Your task to perform on an android device: make emails show in primary in the gmail app Image 0: 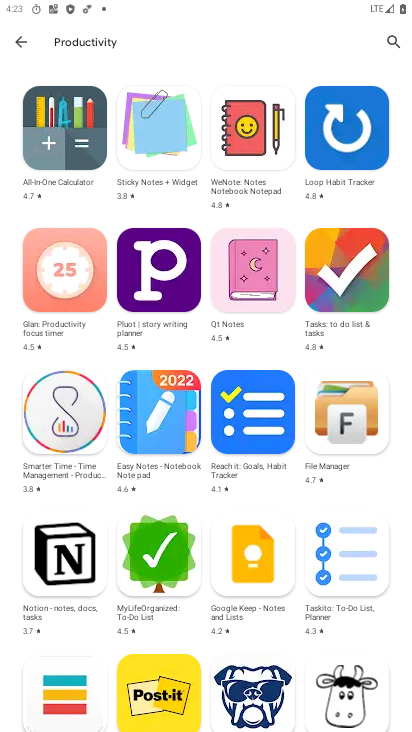
Step 0: press home button
Your task to perform on an android device: make emails show in primary in the gmail app Image 1: 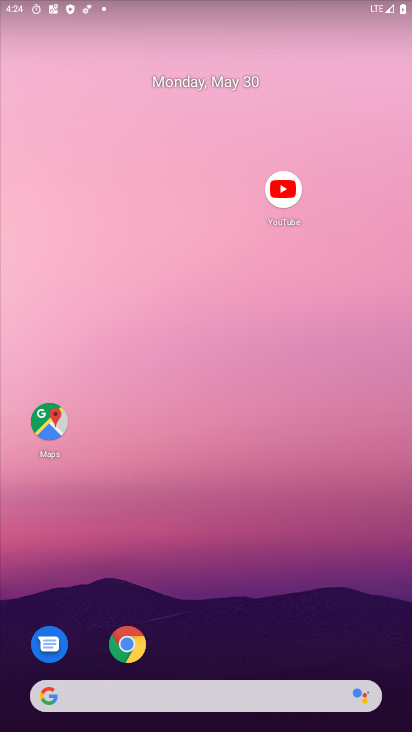
Step 1: drag from (176, 663) to (182, 194)
Your task to perform on an android device: make emails show in primary in the gmail app Image 2: 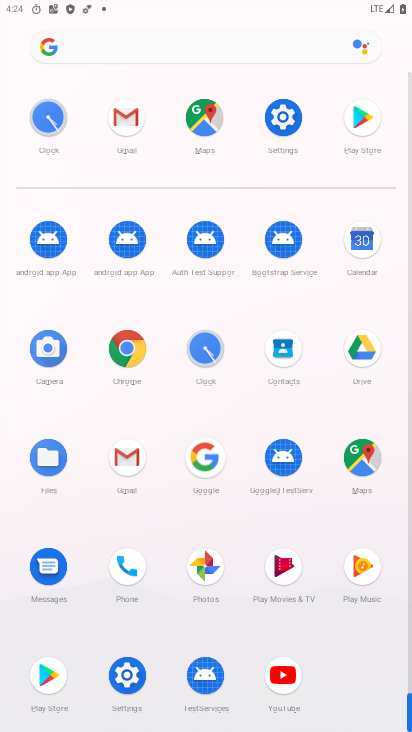
Step 2: click (116, 138)
Your task to perform on an android device: make emails show in primary in the gmail app Image 3: 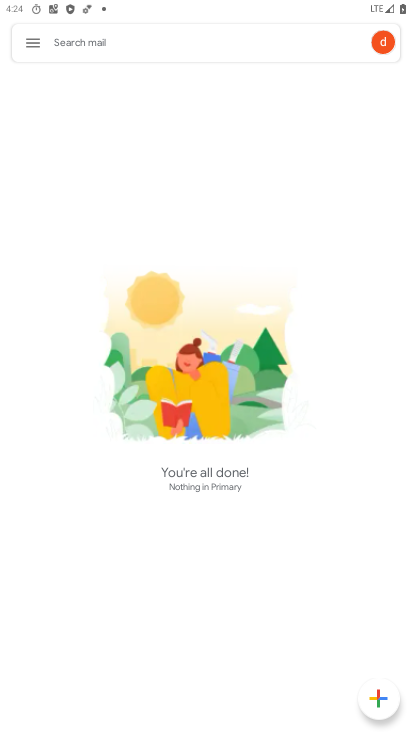
Step 3: click (27, 53)
Your task to perform on an android device: make emails show in primary in the gmail app Image 4: 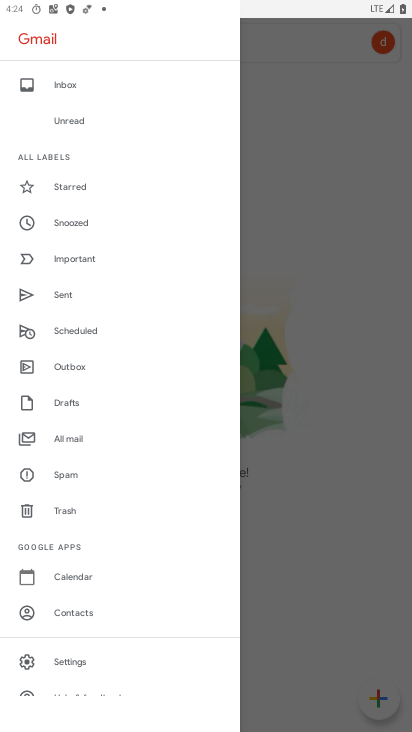
Step 4: task complete